Your task to perform on an android device: Set the phone to "Do not disturb". Image 0: 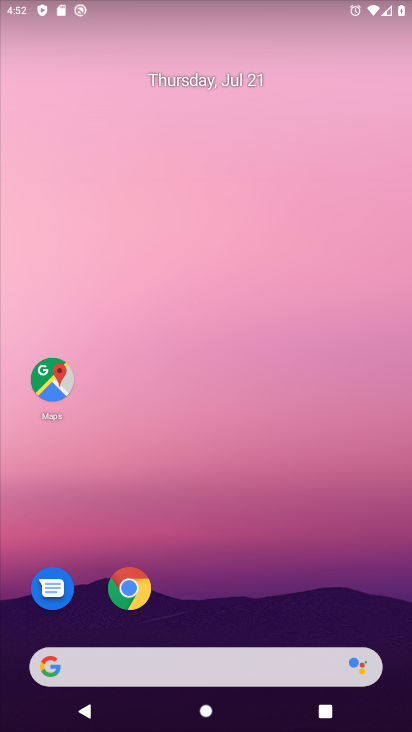
Step 0: drag from (334, 614) to (280, 25)
Your task to perform on an android device: Set the phone to "Do not disturb". Image 1: 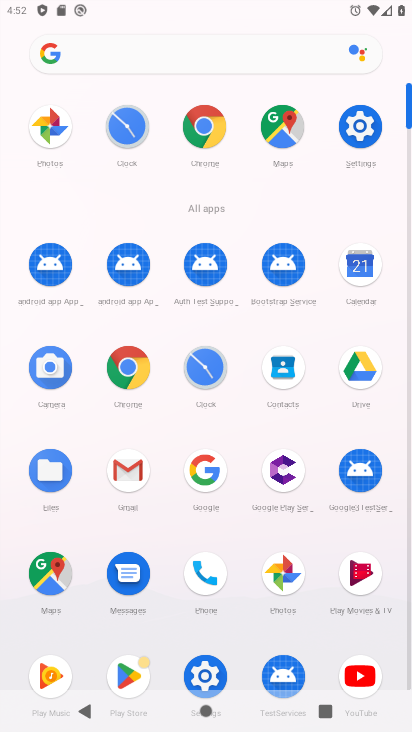
Step 1: click (348, 138)
Your task to perform on an android device: Set the phone to "Do not disturb". Image 2: 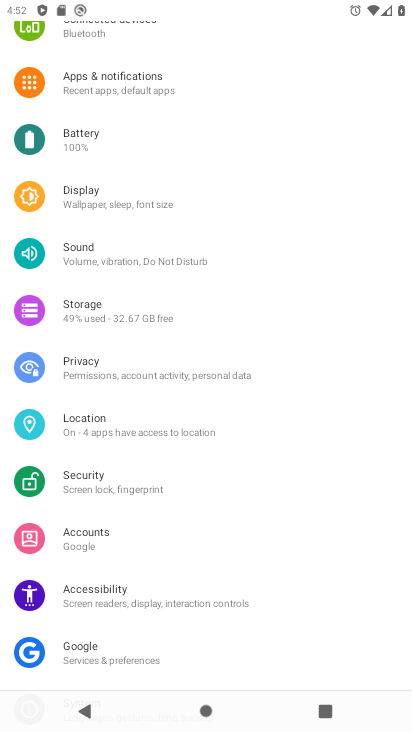
Step 2: click (148, 256)
Your task to perform on an android device: Set the phone to "Do not disturb". Image 3: 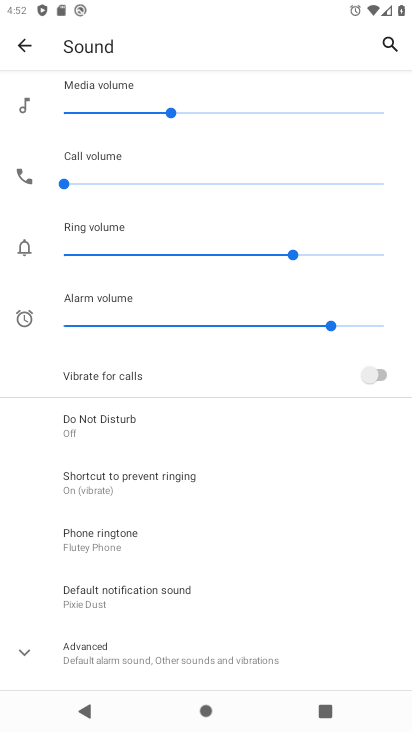
Step 3: click (148, 427)
Your task to perform on an android device: Set the phone to "Do not disturb". Image 4: 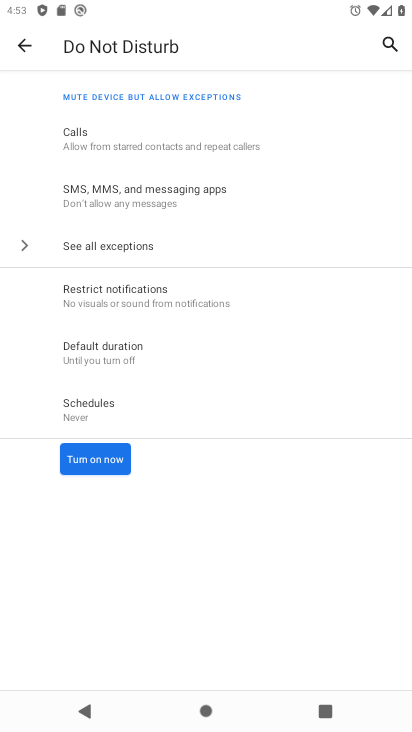
Step 4: click (109, 467)
Your task to perform on an android device: Set the phone to "Do not disturb". Image 5: 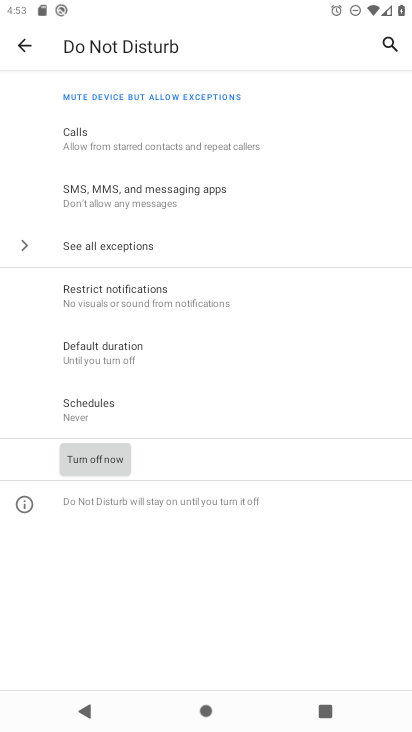
Step 5: task complete